Your task to perform on an android device: Add "rayovac triple a" to the cart on newegg, then select checkout. Image 0: 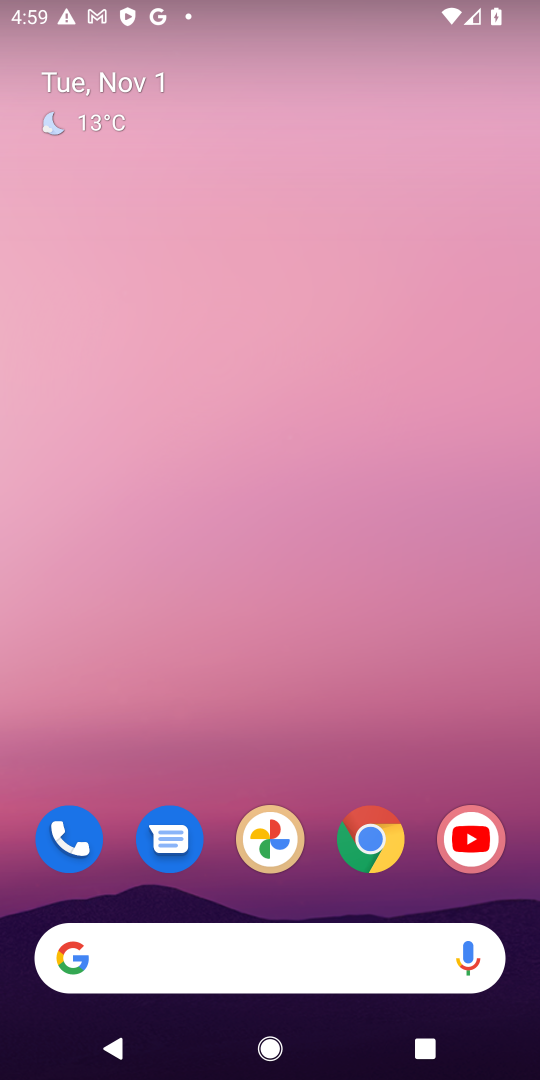
Step 0: drag from (306, 870) to (322, 149)
Your task to perform on an android device: Add "rayovac triple a" to the cart on newegg, then select checkout. Image 1: 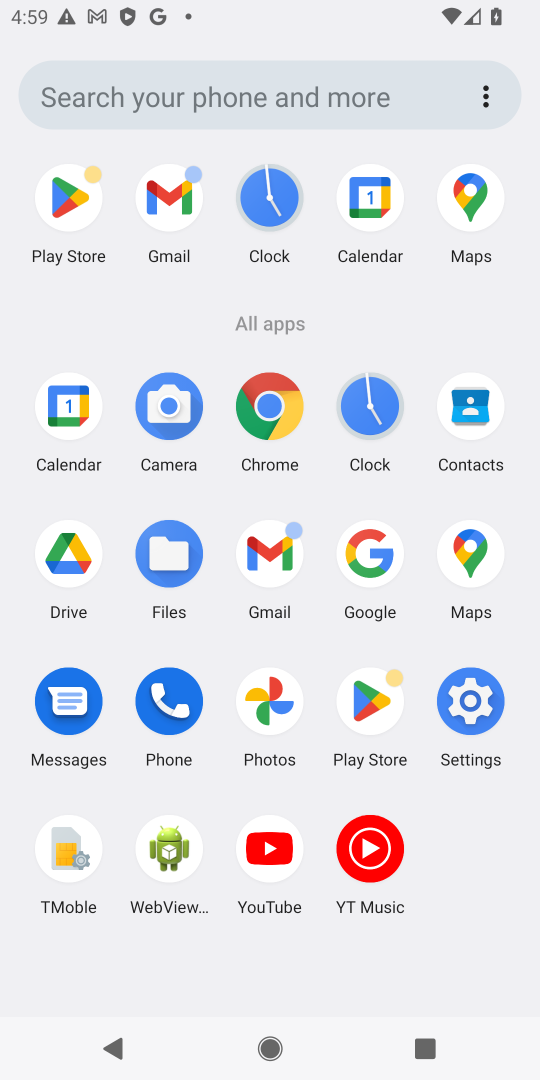
Step 1: click (269, 395)
Your task to perform on an android device: Add "rayovac triple a" to the cart on newegg, then select checkout. Image 2: 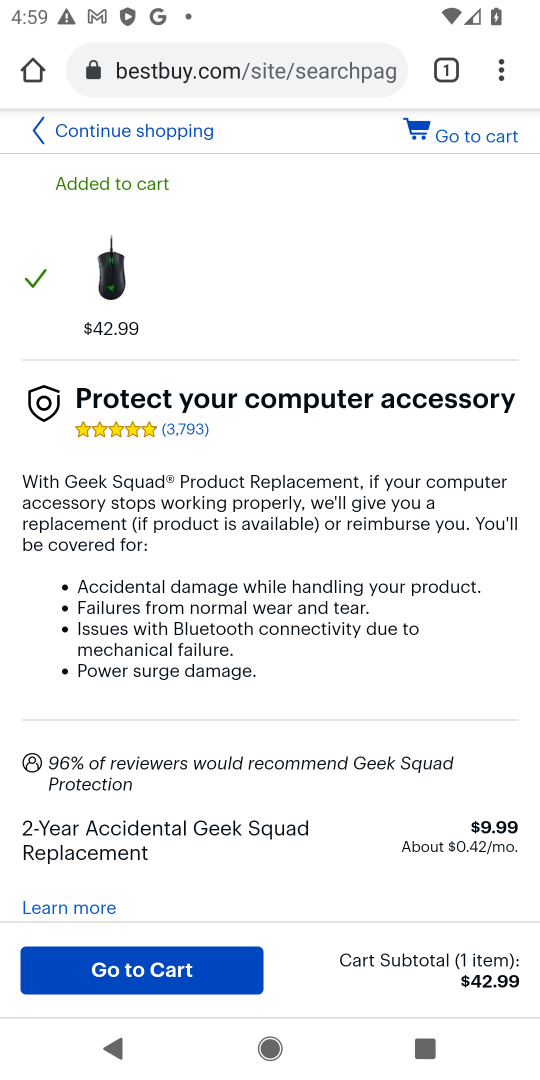
Step 2: click (309, 72)
Your task to perform on an android device: Add "rayovac triple a" to the cart on newegg, then select checkout. Image 3: 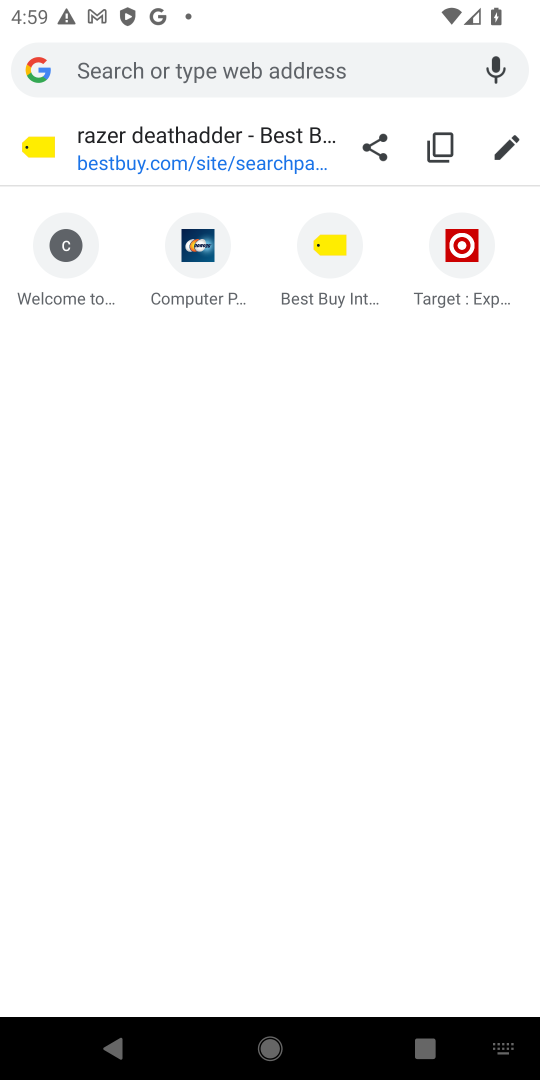
Step 3: type "newegg.com"
Your task to perform on an android device: Add "rayovac triple a" to the cart on newegg, then select checkout. Image 4: 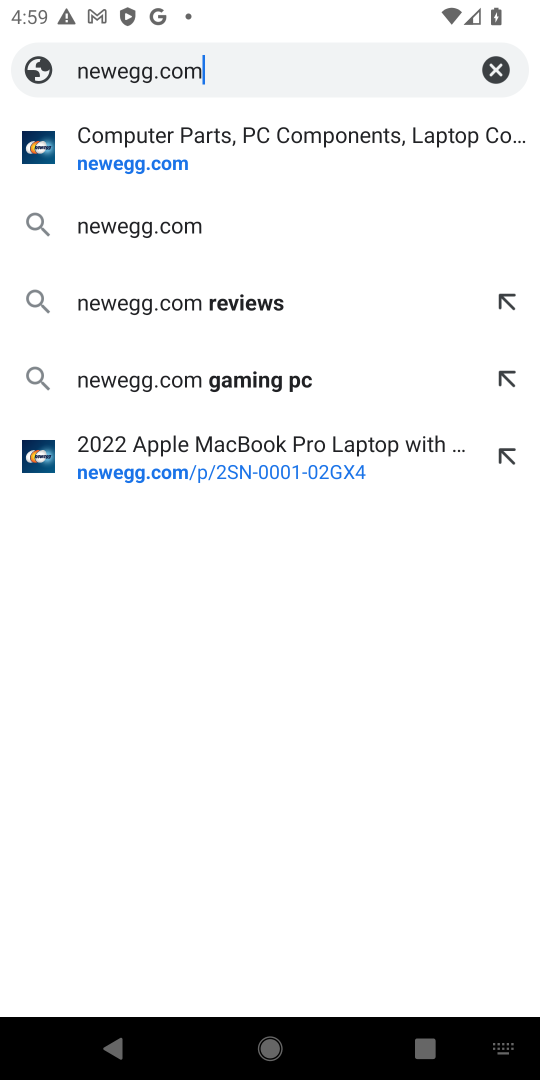
Step 4: press enter
Your task to perform on an android device: Add "rayovac triple a" to the cart on newegg, then select checkout. Image 5: 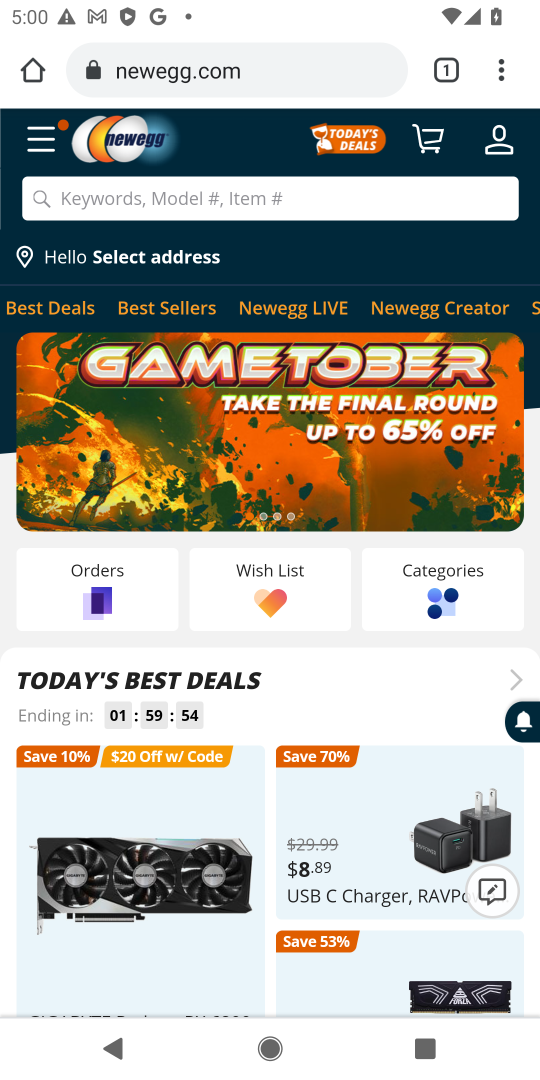
Step 5: click (455, 196)
Your task to perform on an android device: Add "rayovac triple a" to the cart on newegg, then select checkout. Image 6: 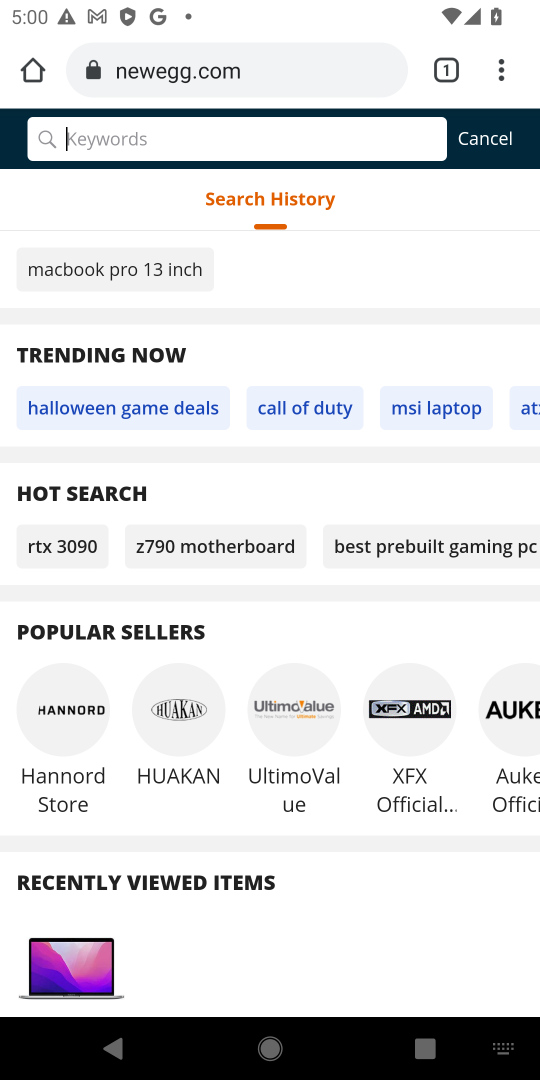
Step 6: type "rayovac triple"
Your task to perform on an android device: Add "rayovac triple a" to the cart on newegg, then select checkout. Image 7: 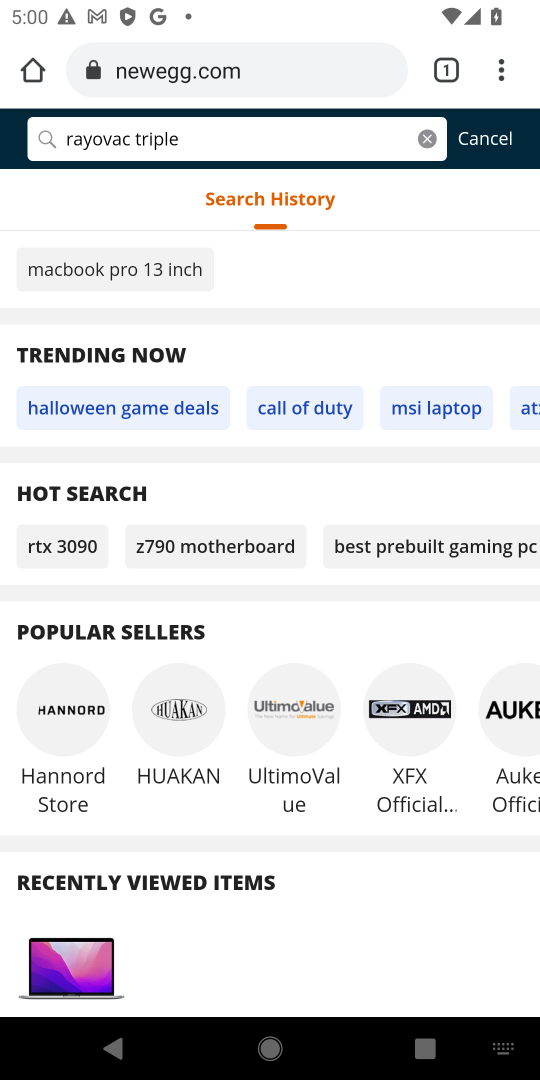
Step 7: press enter
Your task to perform on an android device: Add "rayovac triple a" to the cart on newegg, then select checkout. Image 8: 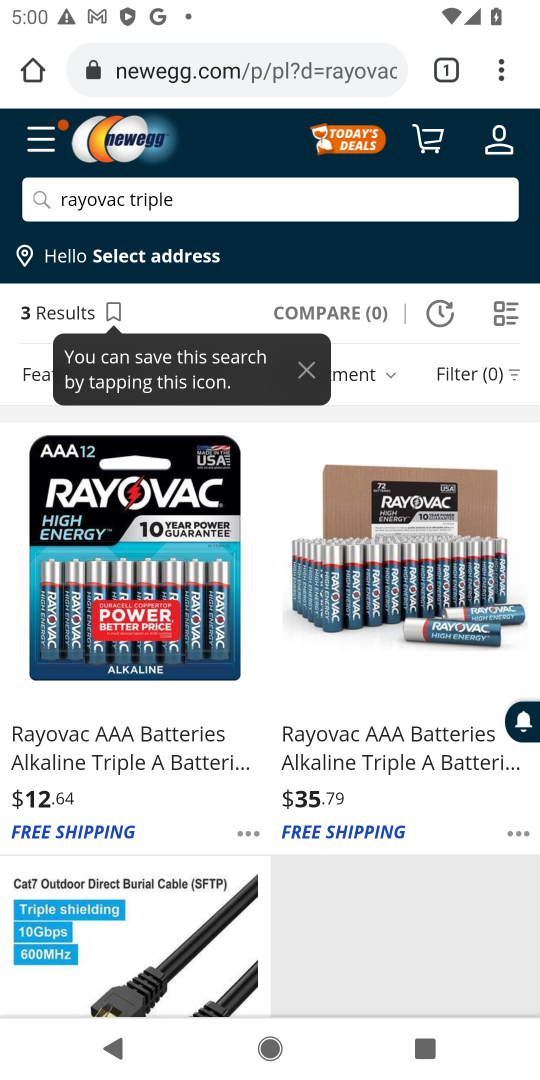
Step 8: click (172, 636)
Your task to perform on an android device: Add "rayovac triple a" to the cart on newegg, then select checkout. Image 9: 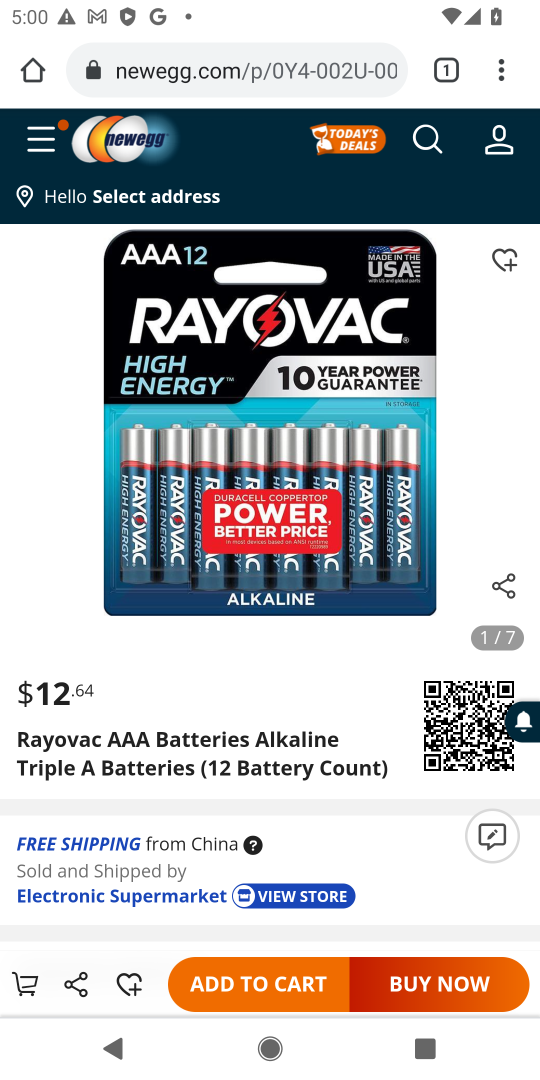
Step 9: click (248, 983)
Your task to perform on an android device: Add "rayovac triple a" to the cart on newegg, then select checkout. Image 10: 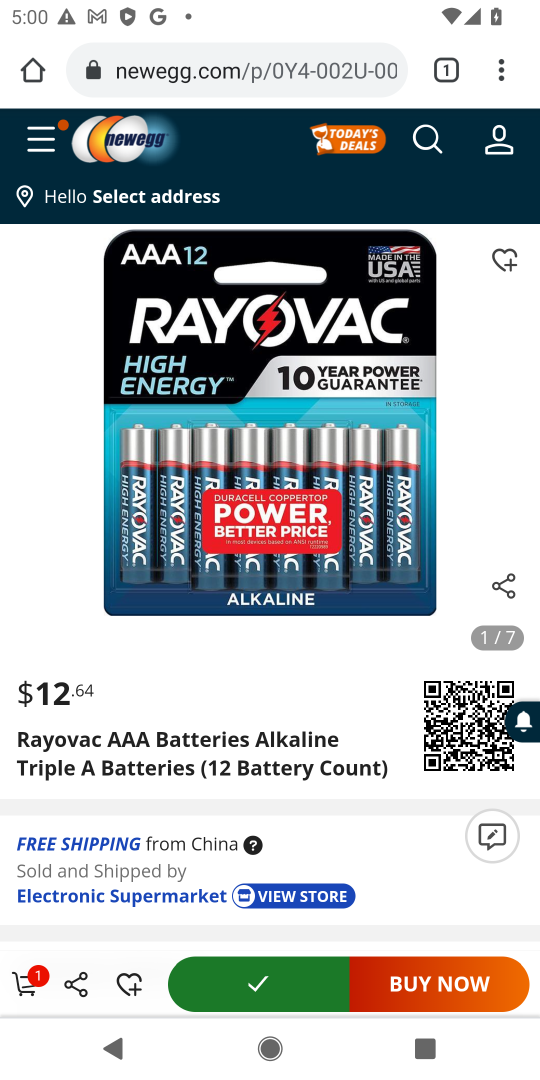
Step 10: click (30, 991)
Your task to perform on an android device: Add "rayovac triple a" to the cart on newegg, then select checkout. Image 11: 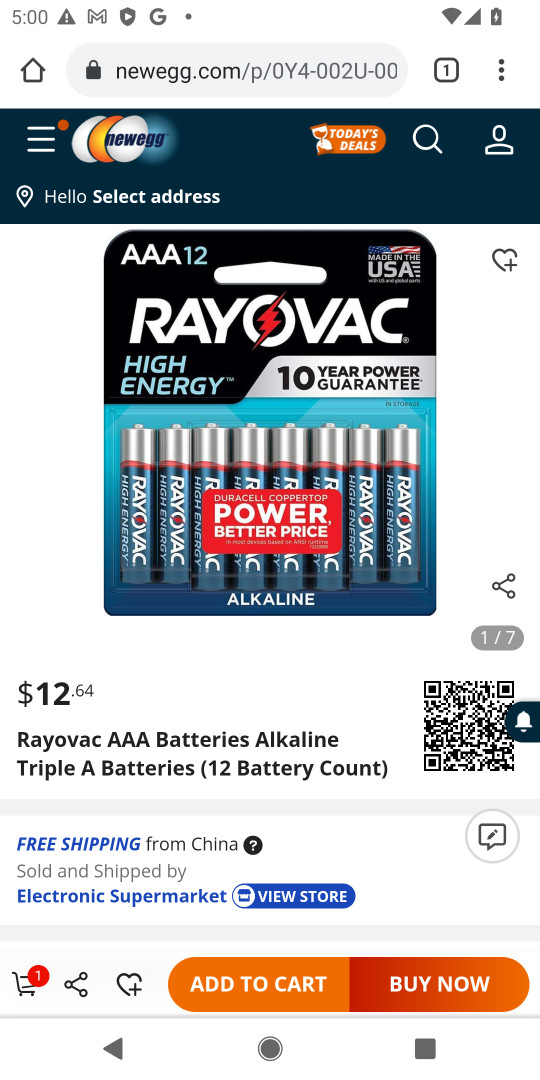
Step 11: click (30, 991)
Your task to perform on an android device: Add "rayovac triple a" to the cart on newegg, then select checkout. Image 12: 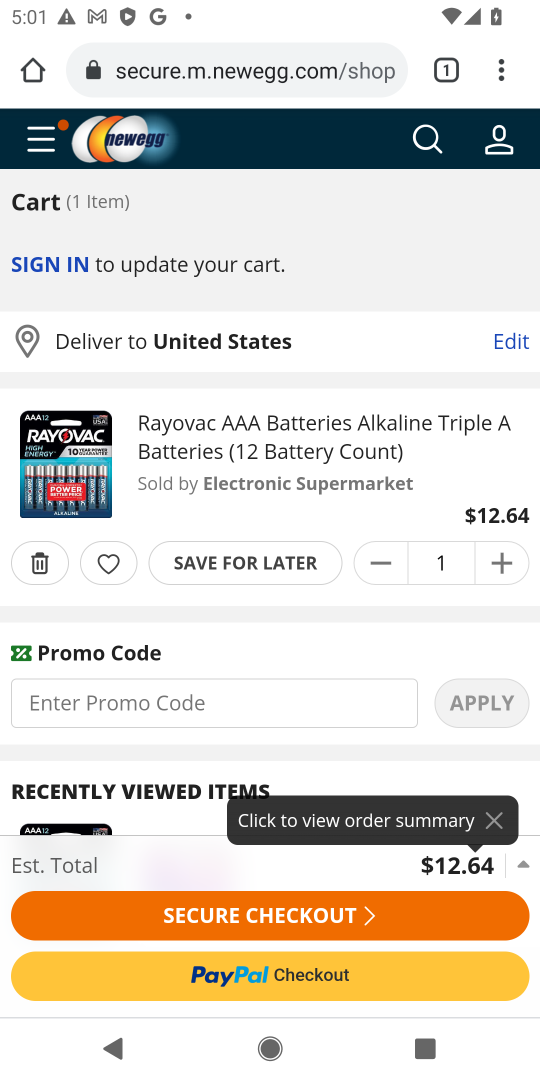
Step 12: click (327, 905)
Your task to perform on an android device: Add "rayovac triple a" to the cart on newegg, then select checkout. Image 13: 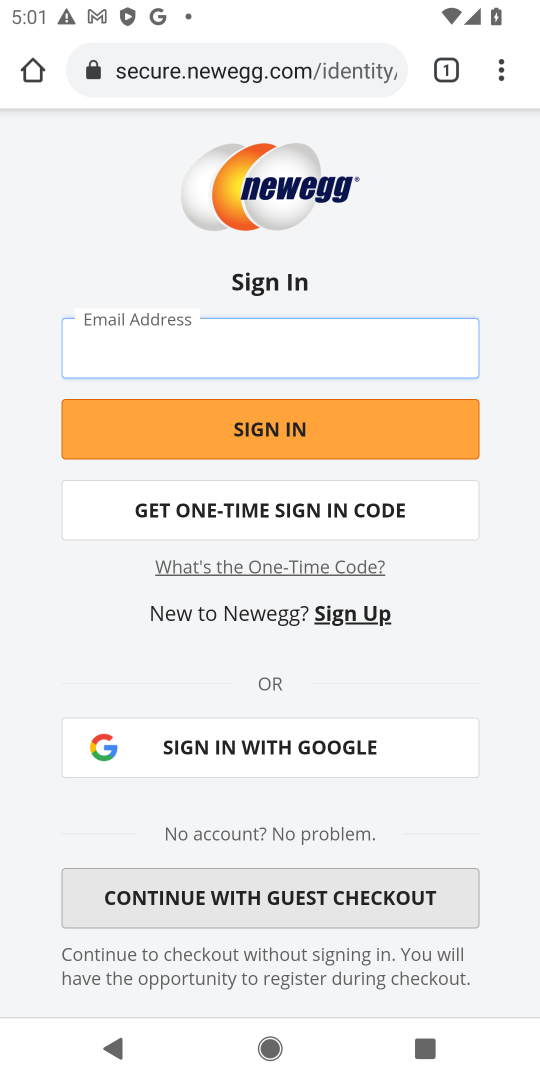
Step 13: task complete